Your task to perform on an android device: turn on location history Image 0: 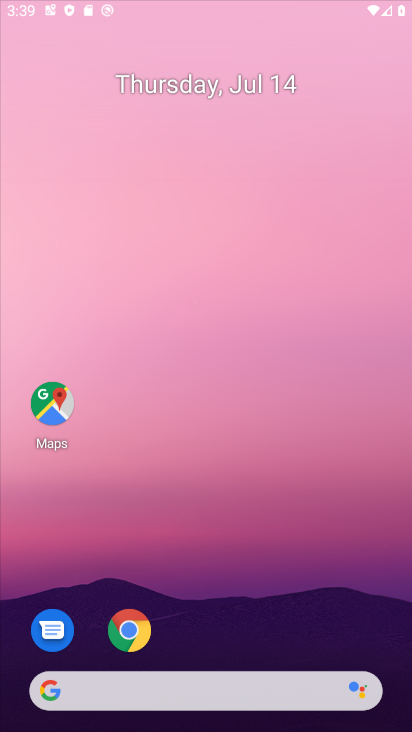
Step 0: press home button
Your task to perform on an android device: turn on location history Image 1: 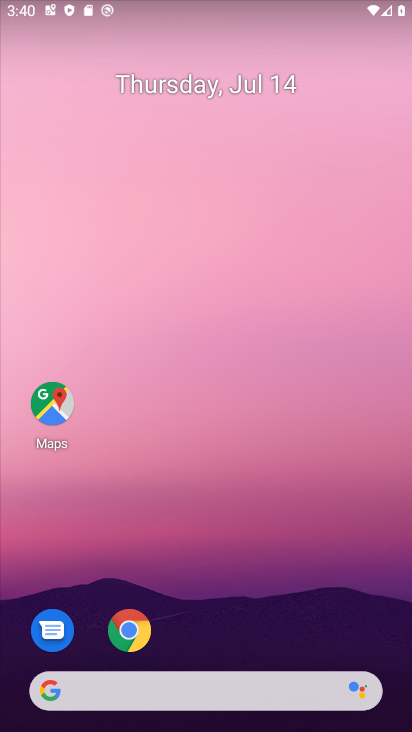
Step 1: drag from (277, 629) to (223, 0)
Your task to perform on an android device: turn on location history Image 2: 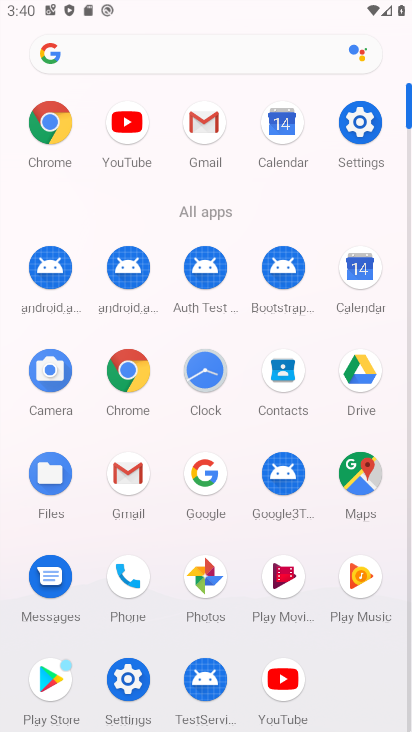
Step 2: click (119, 680)
Your task to perform on an android device: turn on location history Image 3: 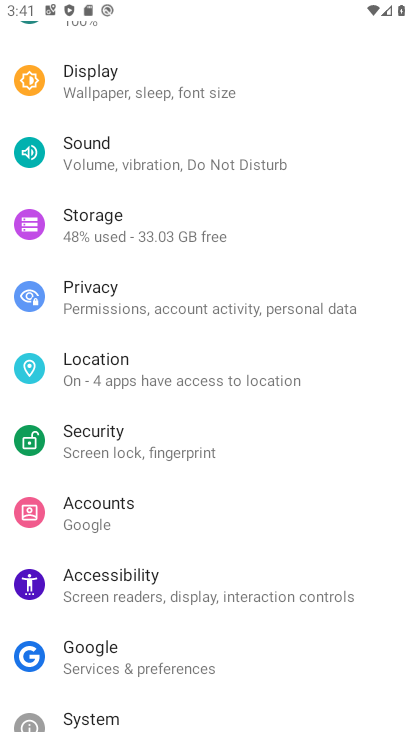
Step 3: click (97, 363)
Your task to perform on an android device: turn on location history Image 4: 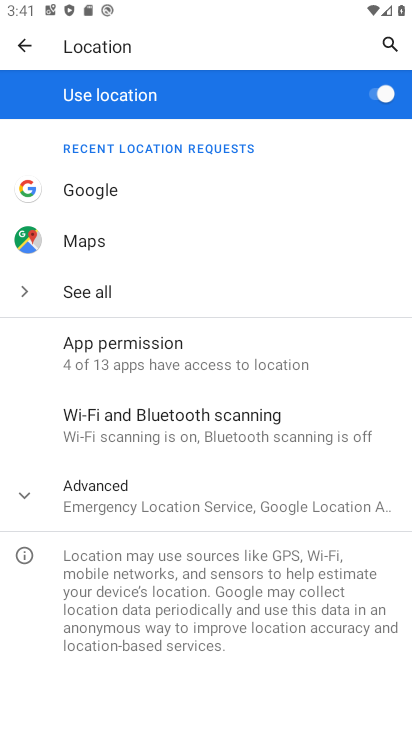
Step 4: click (142, 497)
Your task to perform on an android device: turn on location history Image 5: 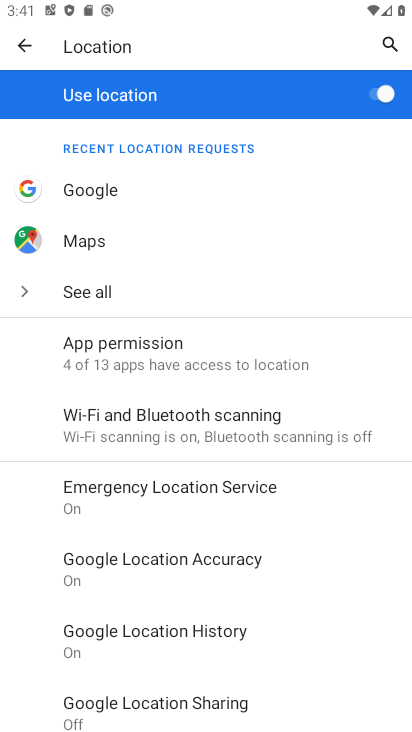
Step 5: click (212, 635)
Your task to perform on an android device: turn on location history Image 6: 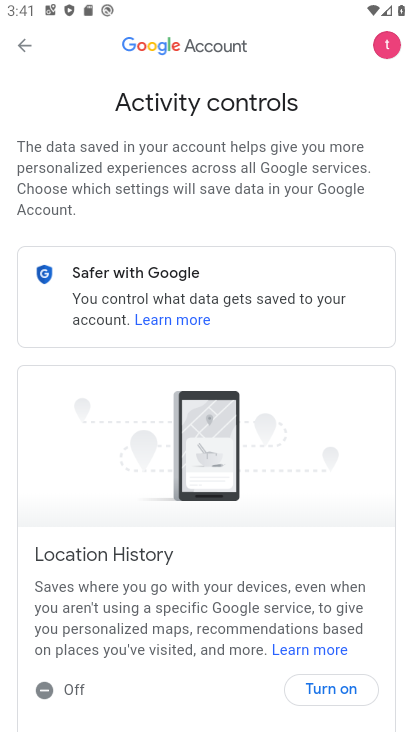
Step 6: click (323, 685)
Your task to perform on an android device: turn on location history Image 7: 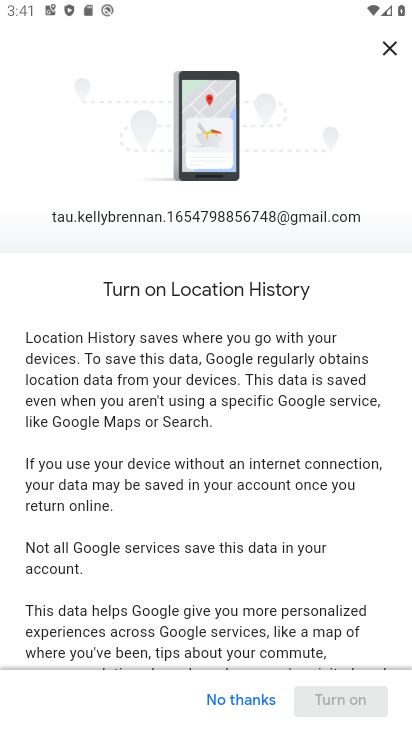
Step 7: drag from (307, 629) to (265, 147)
Your task to perform on an android device: turn on location history Image 8: 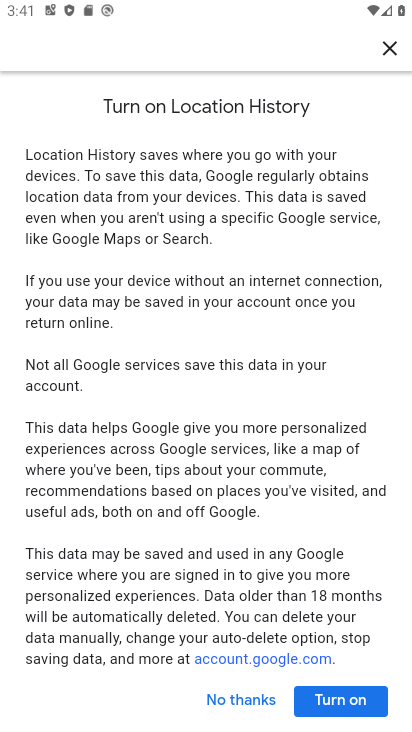
Step 8: click (307, 712)
Your task to perform on an android device: turn on location history Image 9: 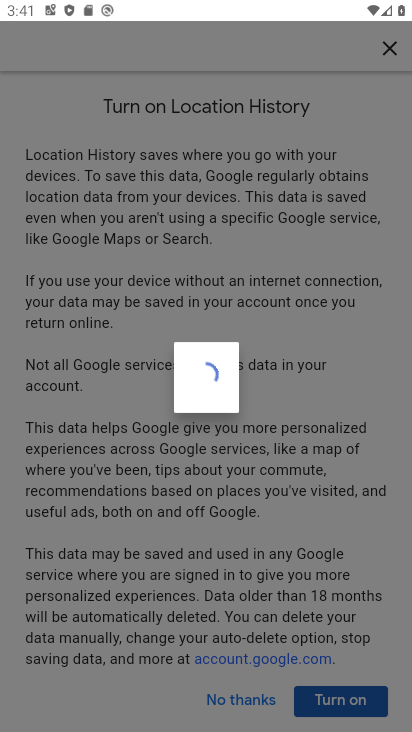
Step 9: click (339, 705)
Your task to perform on an android device: turn on location history Image 10: 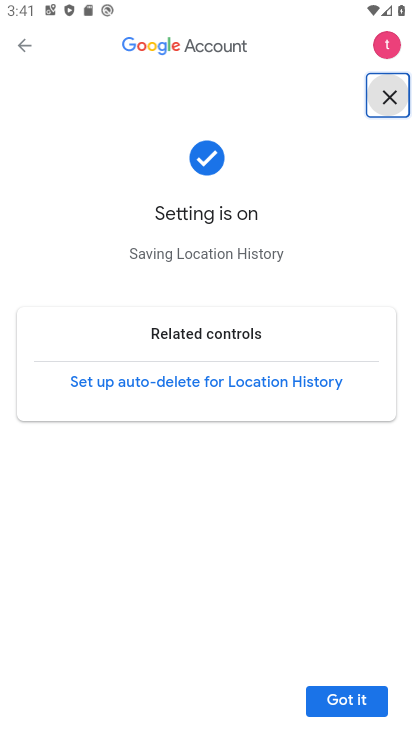
Step 10: click (363, 707)
Your task to perform on an android device: turn on location history Image 11: 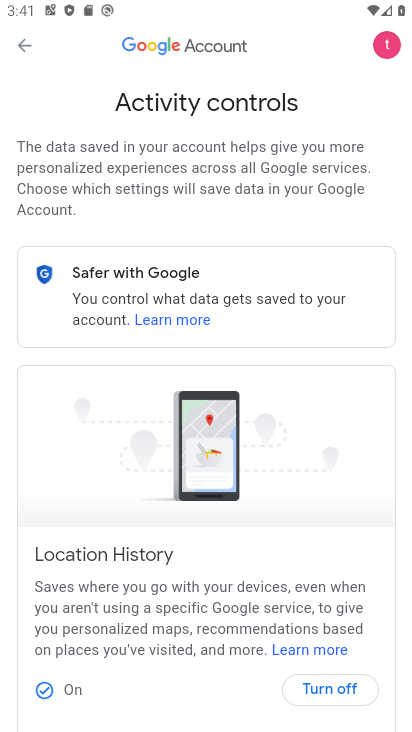
Step 11: task complete